Your task to perform on an android device: Search for Italian restaurants on Maps Image 0: 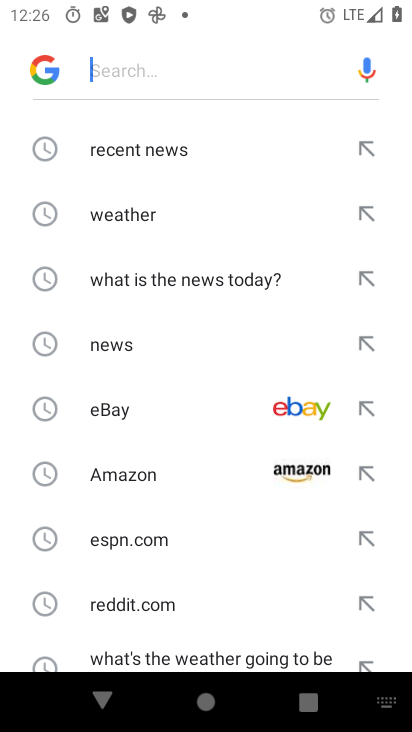
Step 0: press home button
Your task to perform on an android device: Search for Italian restaurants on Maps Image 1: 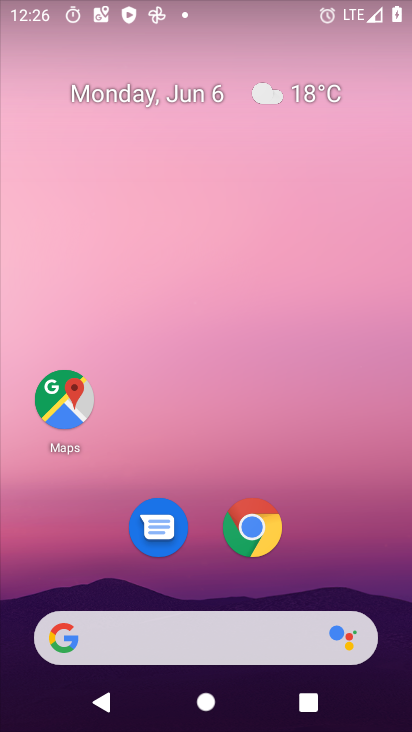
Step 1: drag from (333, 550) to (364, 0)
Your task to perform on an android device: Search for Italian restaurants on Maps Image 2: 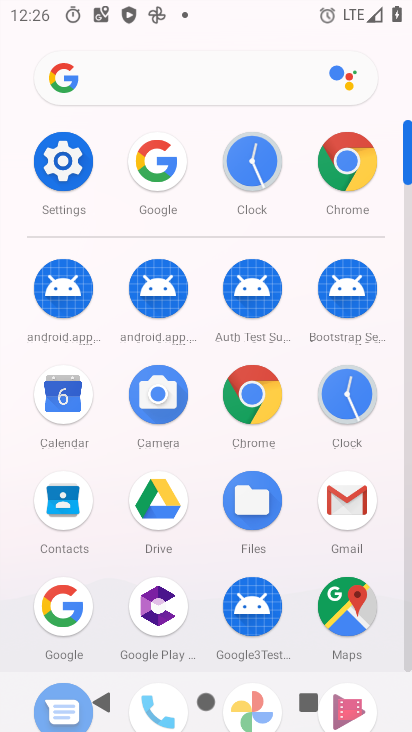
Step 2: click (350, 606)
Your task to perform on an android device: Search for Italian restaurants on Maps Image 3: 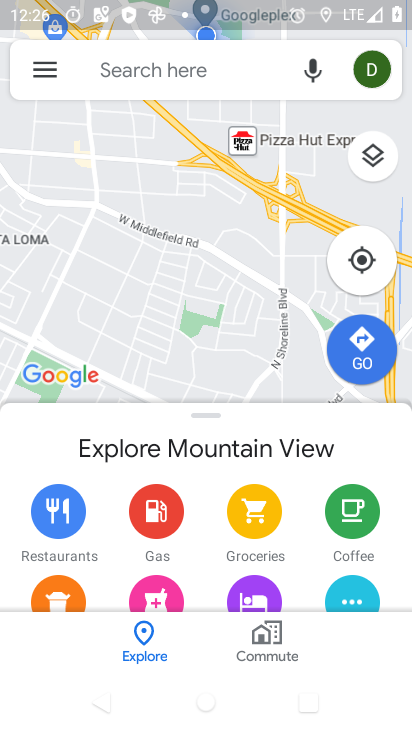
Step 3: click (180, 57)
Your task to perform on an android device: Search for Italian restaurants on Maps Image 4: 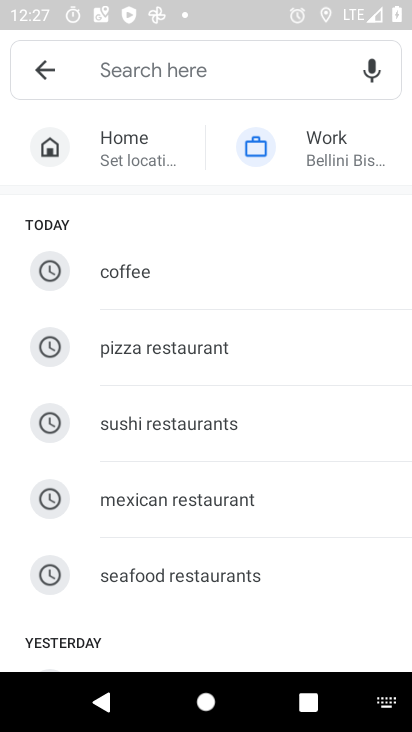
Step 4: type "italian restauratns"
Your task to perform on an android device: Search for Italian restaurants on Maps Image 5: 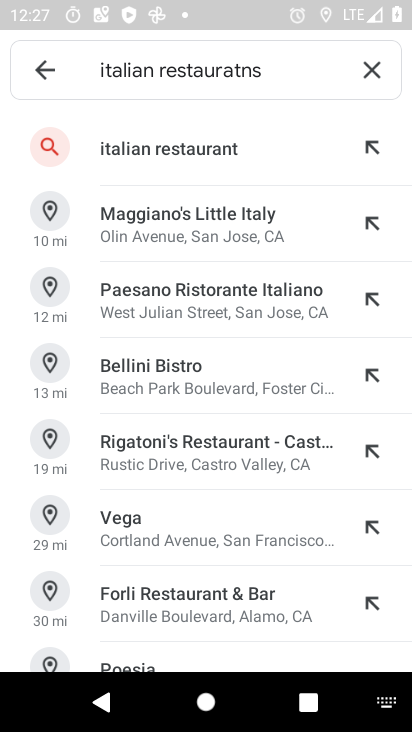
Step 5: click (223, 148)
Your task to perform on an android device: Search for Italian restaurants on Maps Image 6: 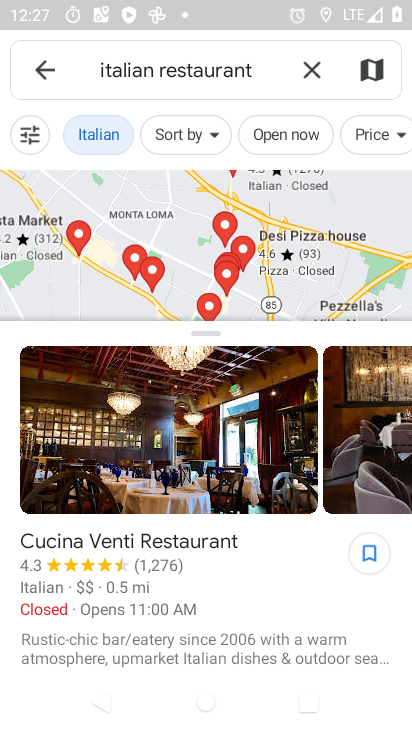
Step 6: task complete